Your task to perform on an android device: Open ESPN.com Image 0: 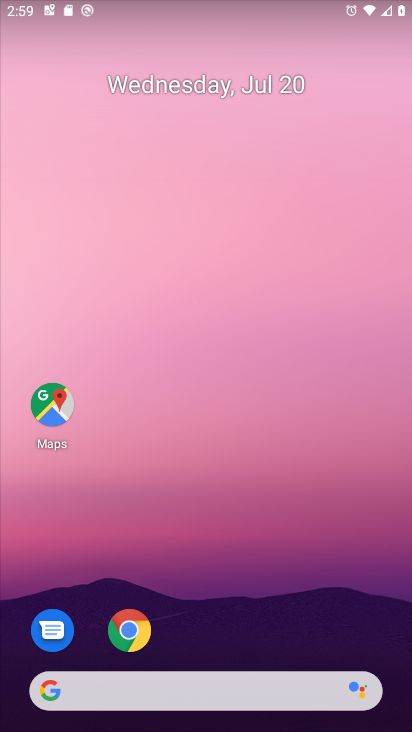
Step 0: press home button
Your task to perform on an android device: Open ESPN.com Image 1: 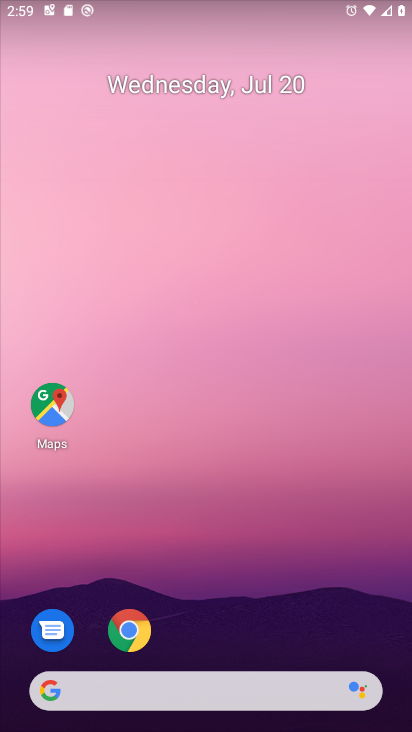
Step 1: drag from (250, 651) to (250, 185)
Your task to perform on an android device: Open ESPN.com Image 2: 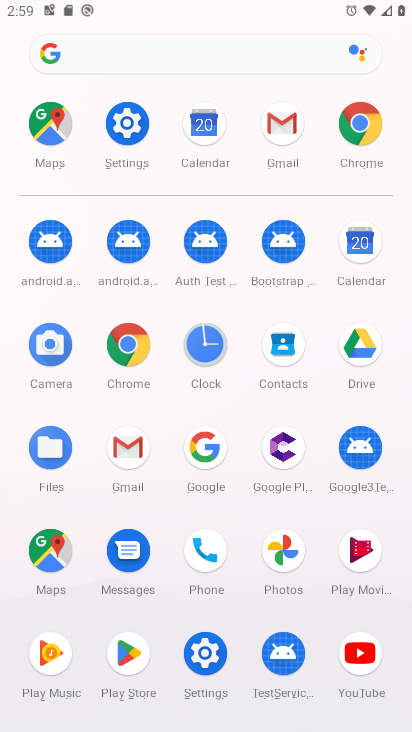
Step 2: click (363, 154)
Your task to perform on an android device: Open ESPN.com Image 3: 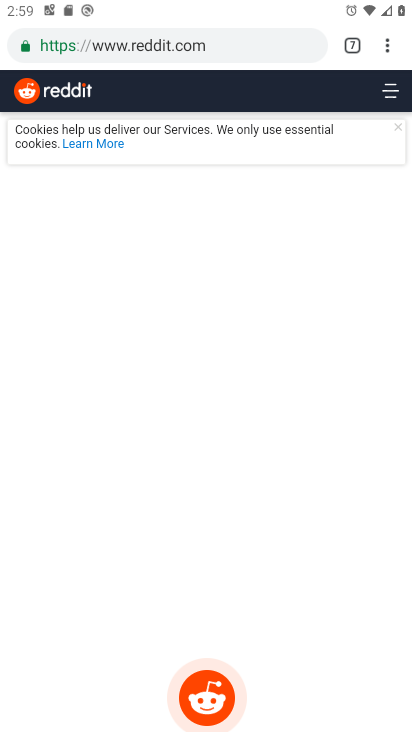
Step 3: click (238, 43)
Your task to perform on an android device: Open ESPN.com Image 4: 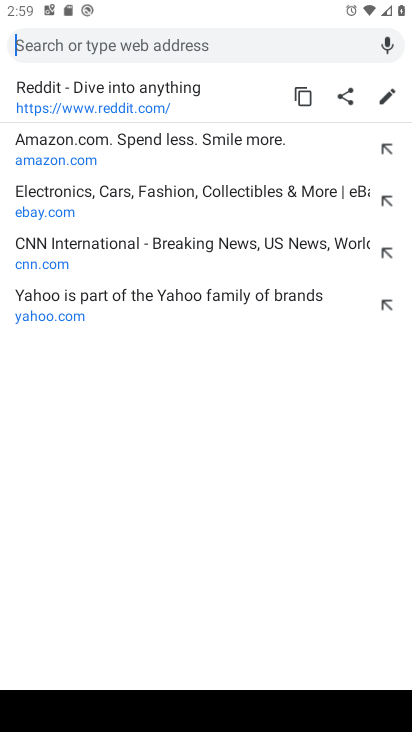
Step 4: type "espn"
Your task to perform on an android device: Open ESPN.com Image 5: 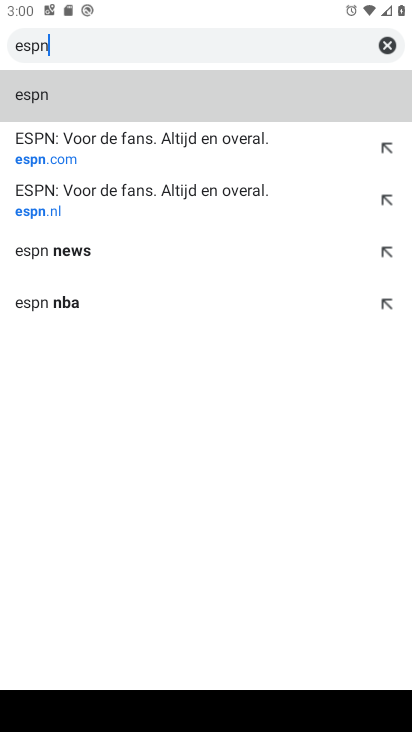
Step 5: click (141, 156)
Your task to perform on an android device: Open ESPN.com Image 6: 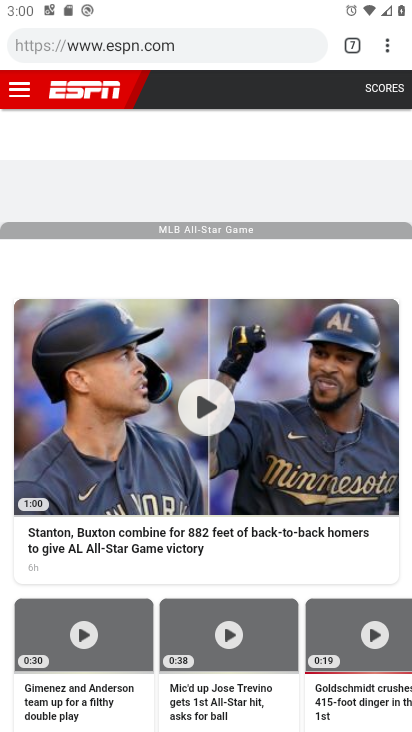
Step 6: task complete